Your task to perform on an android device: turn on wifi Image 0: 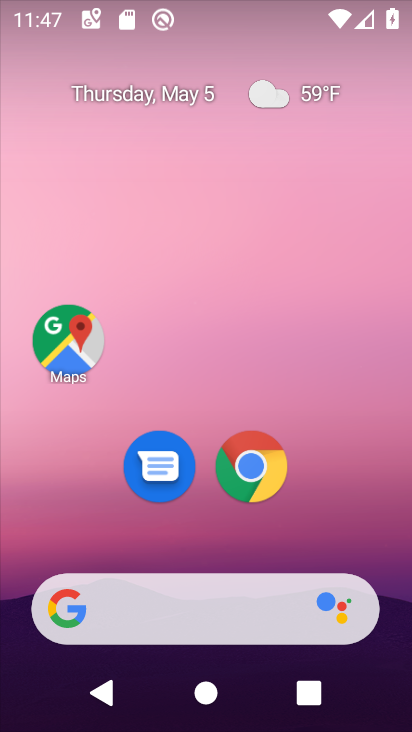
Step 0: drag from (393, 537) to (331, 263)
Your task to perform on an android device: turn on wifi Image 1: 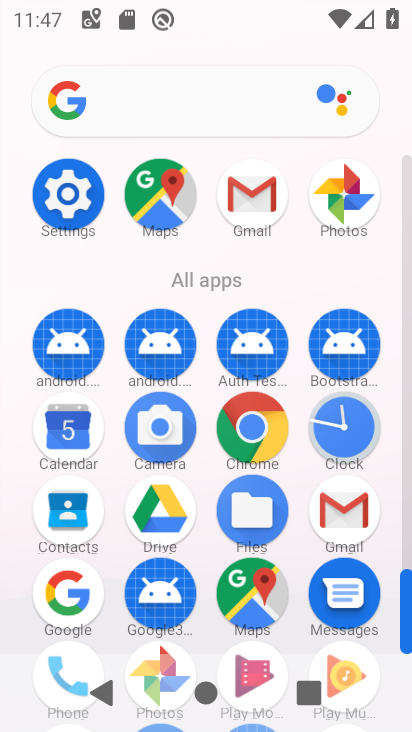
Step 1: click (68, 193)
Your task to perform on an android device: turn on wifi Image 2: 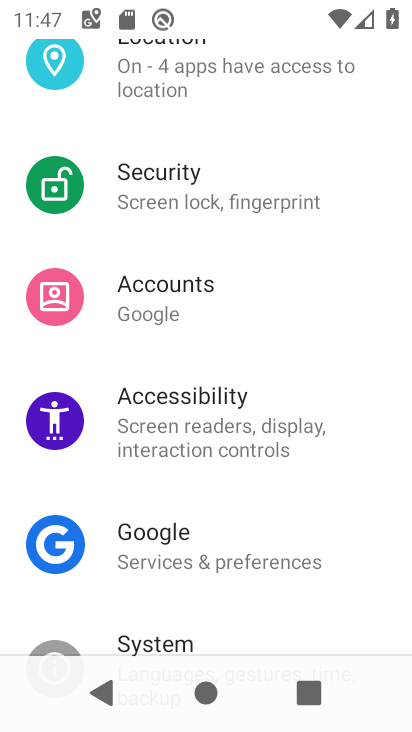
Step 2: drag from (358, 140) to (314, 600)
Your task to perform on an android device: turn on wifi Image 3: 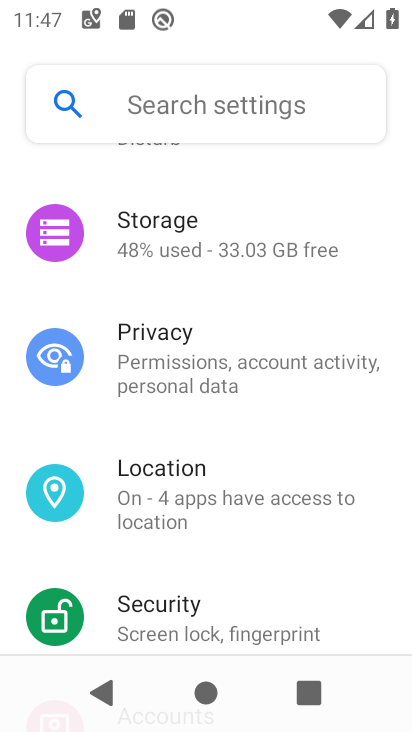
Step 3: drag from (281, 245) to (306, 526)
Your task to perform on an android device: turn on wifi Image 4: 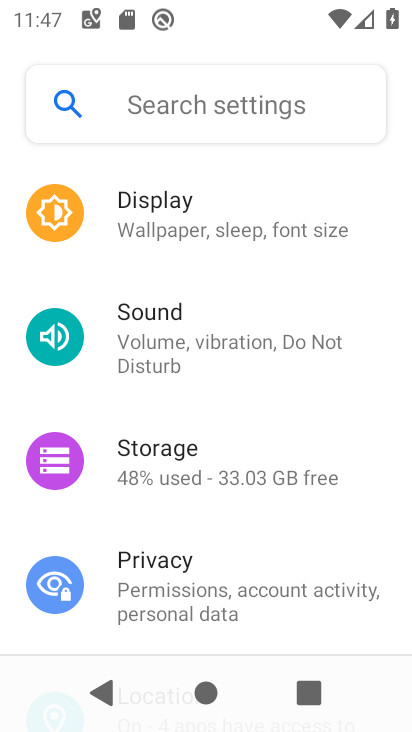
Step 4: drag from (235, 174) to (262, 609)
Your task to perform on an android device: turn on wifi Image 5: 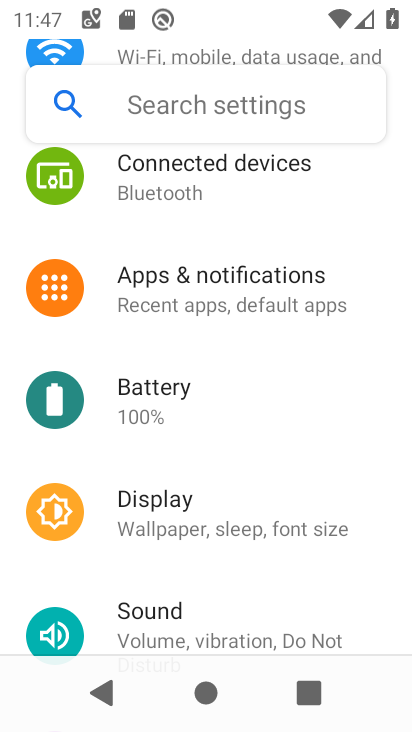
Step 5: drag from (267, 153) to (298, 556)
Your task to perform on an android device: turn on wifi Image 6: 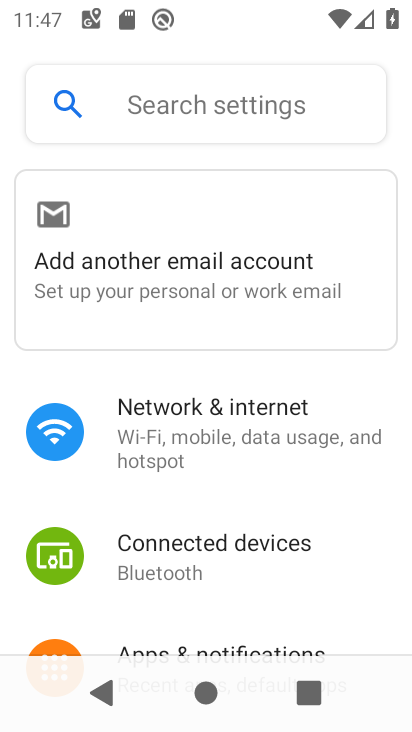
Step 6: click (303, 410)
Your task to perform on an android device: turn on wifi Image 7: 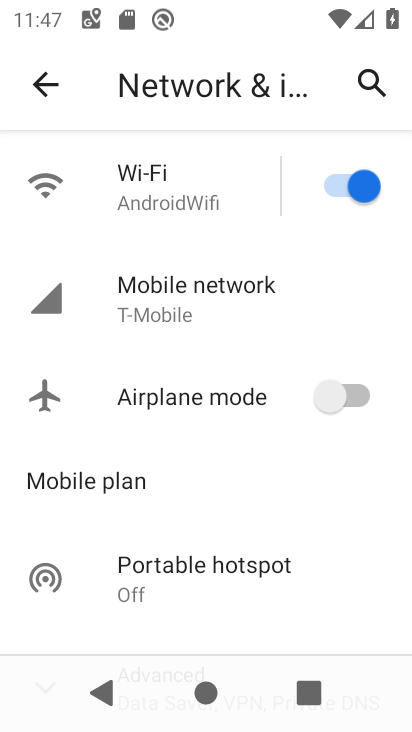
Step 7: task complete